Your task to perform on an android device: Turn off the flashlight Image 0: 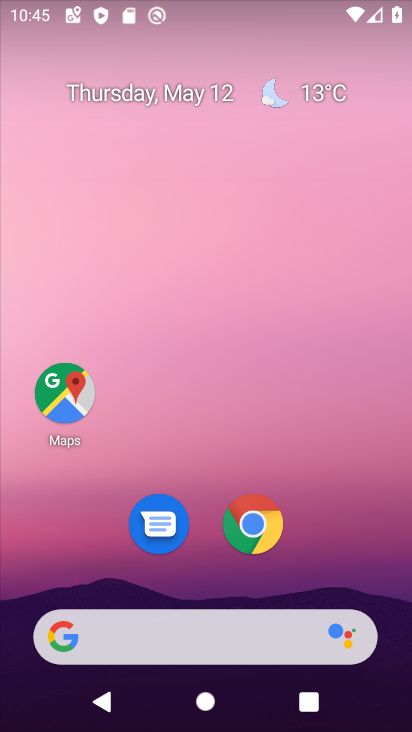
Step 0: drag from (216, 446) to (283, 8)
Your task to perform on an android device: Turn off the flashlight Image 1: 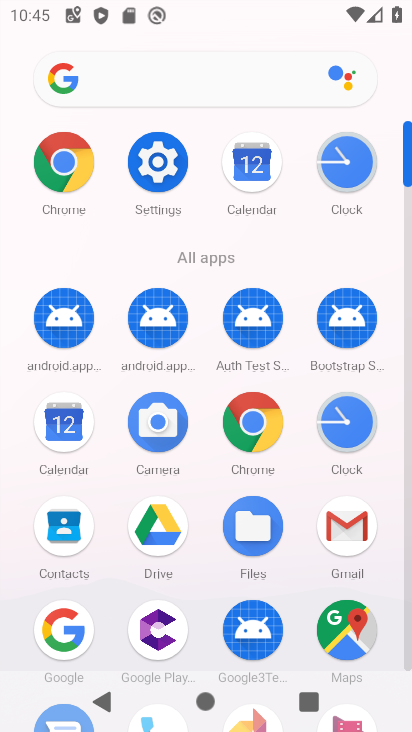
Step 1: click (157, 155)
Your task to perform on an android device: Turn off the flashlight Image 2: 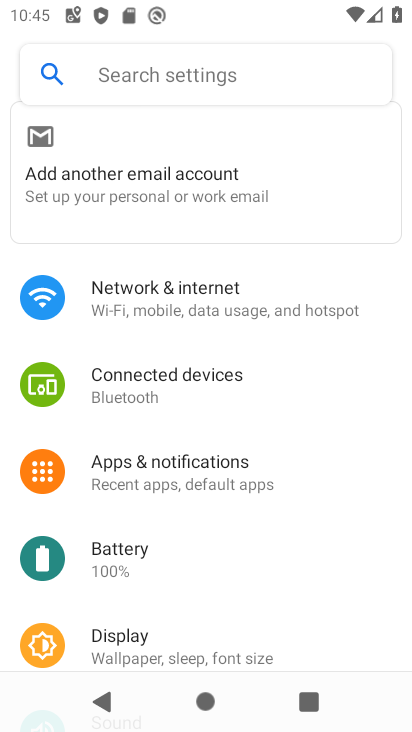
Step 2: click (188, 72)
Your task to perform on an android device: Turn off the flashlight Image 3: 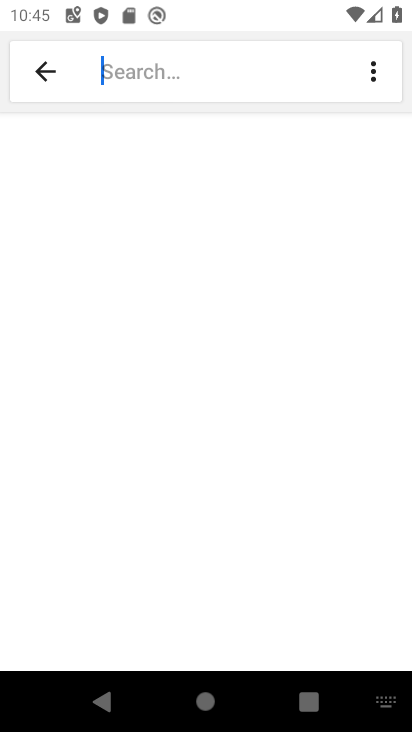
Step 3: type "Flashlight"
Your task to perform on an android device: Turn off the flashlight Image 4: 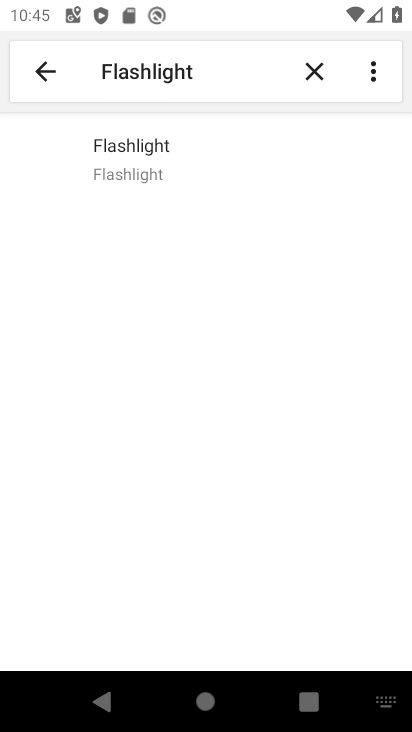
Step 4: click (155, 164)
Your task to perform on an android device: Turn off the flashlight Image 5: 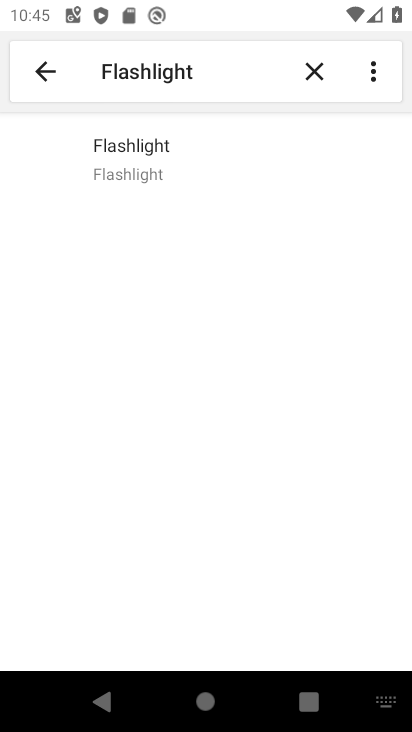
Step 5: task complete